Your task to perform on an android device: see sites visited before in the chrome app Image 0: 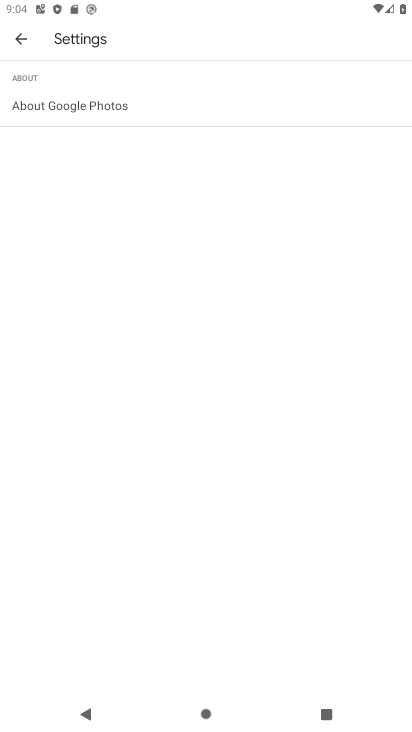
Step 0: click (26, 39)
Your task to perform on an android device: see sites visited before in the chrome app Image 1: 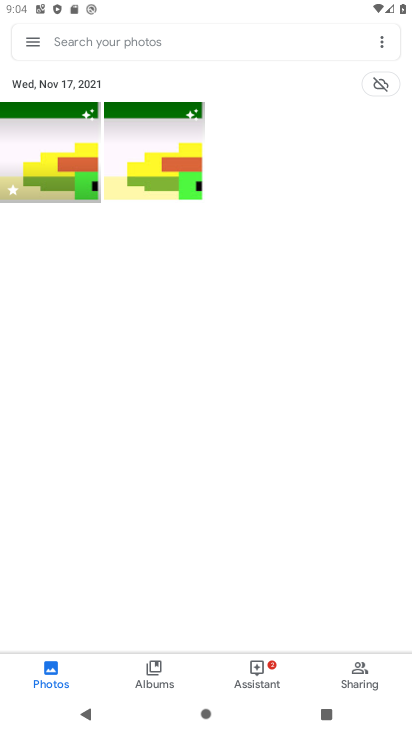
Step 1: press home button
Your task to perform on an android device: see sites visited before in the chrome app Image 2: 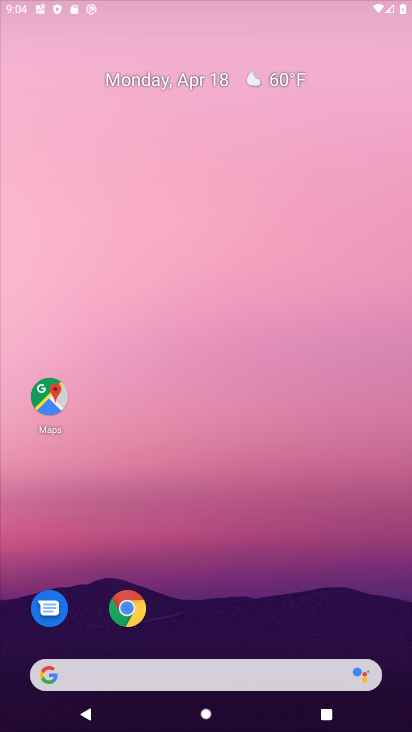
Step 2: drag from (190, 576) to (256, 58)
Your task to perform on an android device: see sites visited before in the chrome app Image 3: 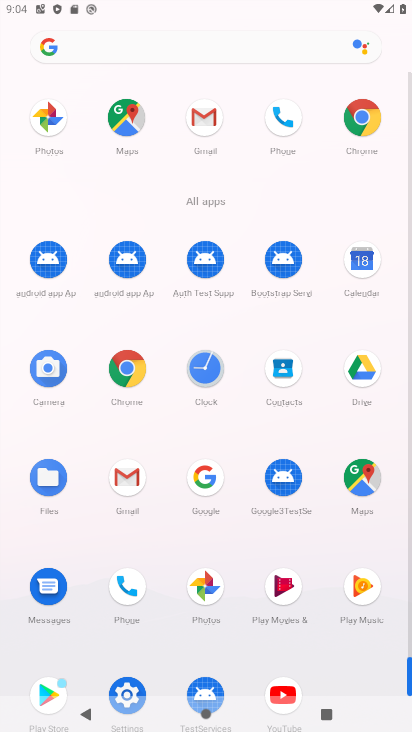
Step 3: click (125, 370)
Your task to perform on an android device: see sites visited before in the chrome app Image 4: 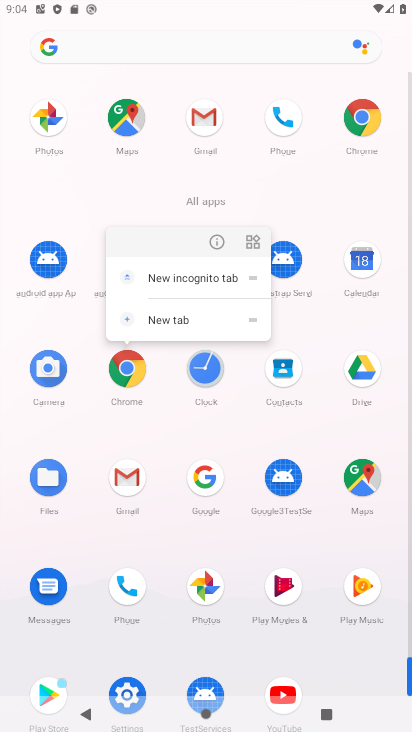
Step 4: click (217, 245)
Your task to perform on an android device: see sites visited before in the chrome app Image 5: 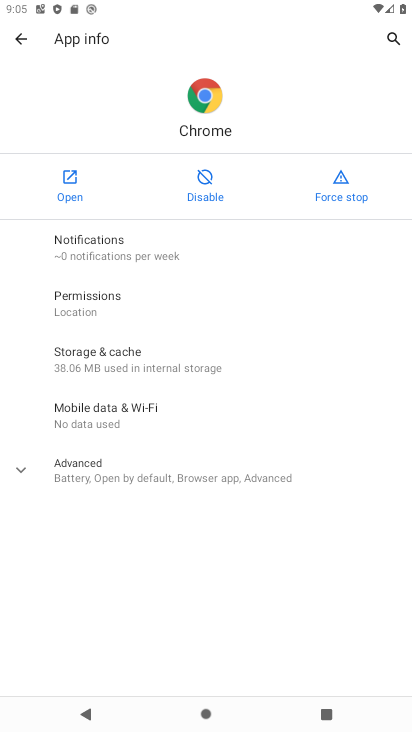
Step 5: click (61, 182)
Your task to perform on an android device: see sites visited before in the chrome app Image 6: 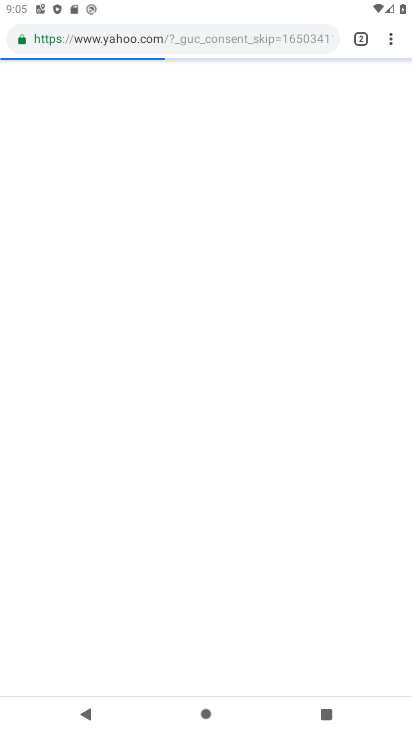
Step 6: click (393, 38)
Your task to perform on an android device: see sites visited before in the chrome app Image 7: 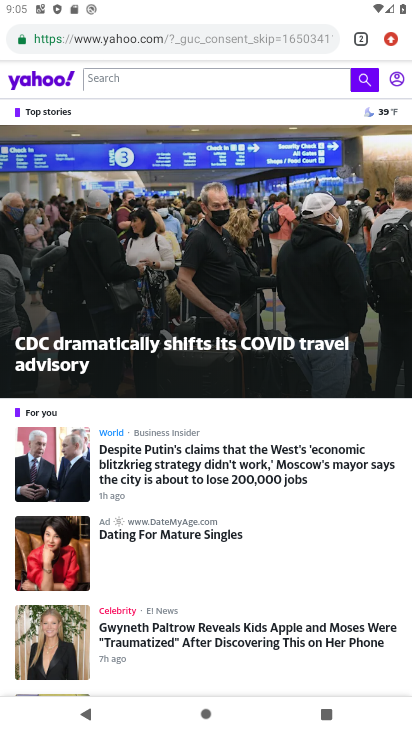
Step 7: drag from (391, 32) to (266, 264)
Your task to perform on an android device: see sites visited before in the chrome app Image 8: 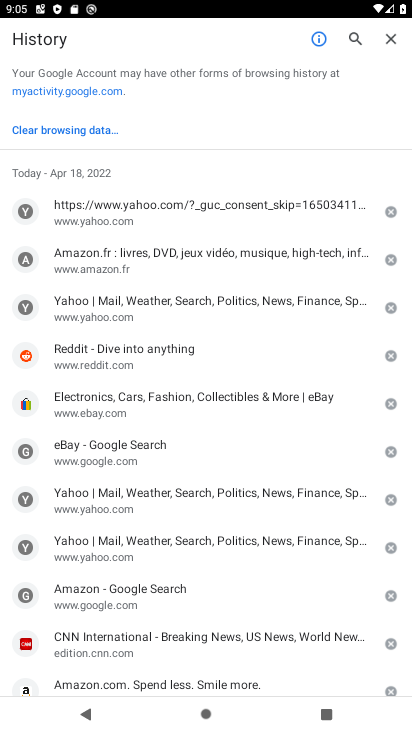
Step 8: drag from (153, 450) to (288, 205)
Your task to perform on an android device: see sites visited before in the chrome app Image 9: 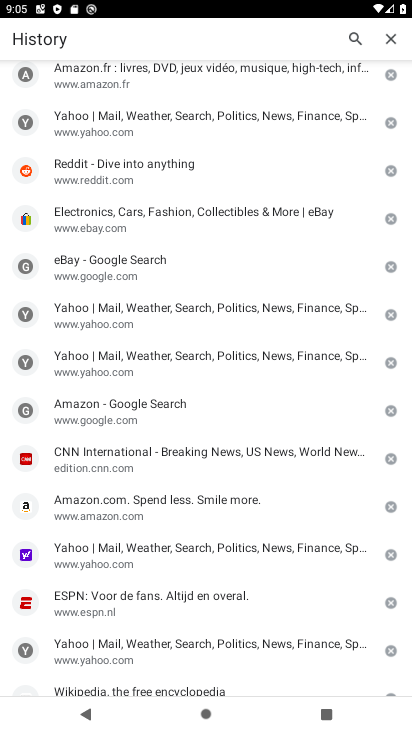
Step 9: drag from (189, 537) to (311, 239)
Your task to perform on an android device: see sites visited before in the chrome app Image 10: 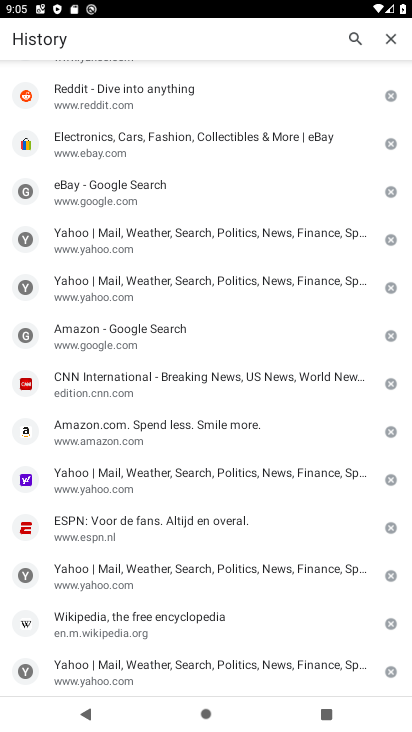
Step 10: click (133, 282)
Your task to perform on an android device: see sites visited before in the chrome app Image 11: 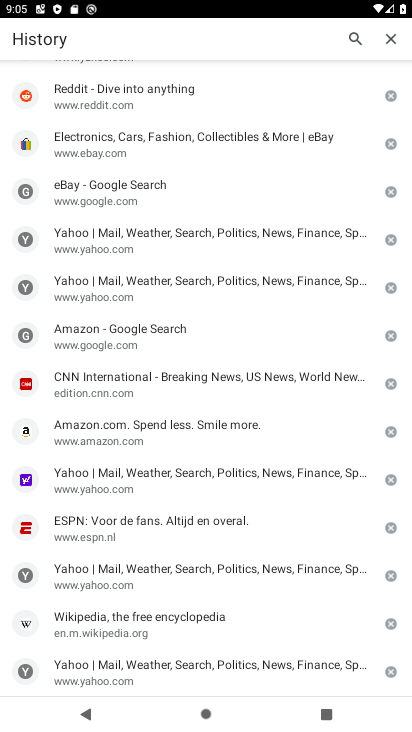
Step 11: task complete